Your task to perform on an android device: turn on improve location accuracy Image 0: 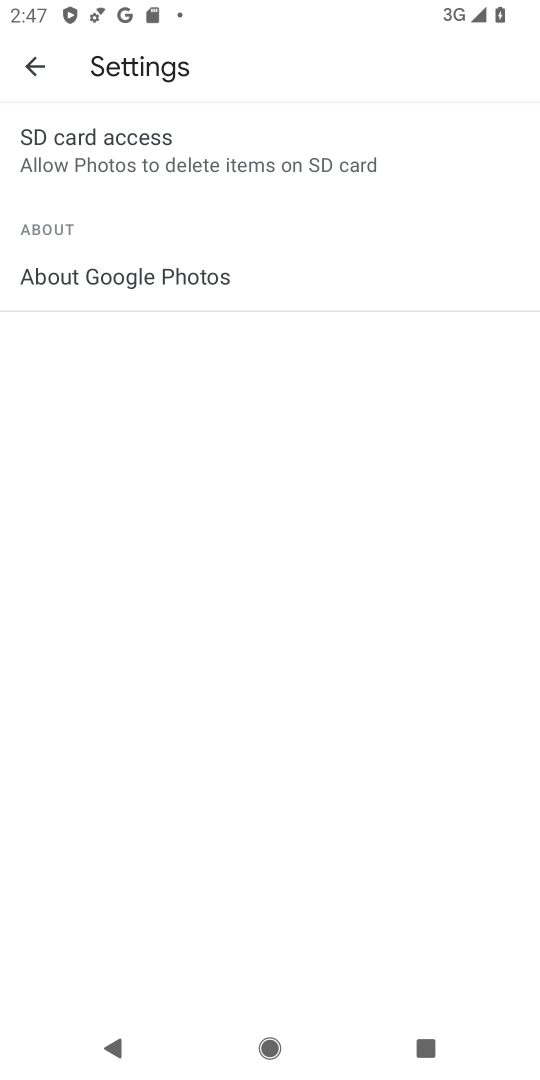
Step 0: press home button
Your task to perform on an android device: turn on improve location accuracy Image 1: 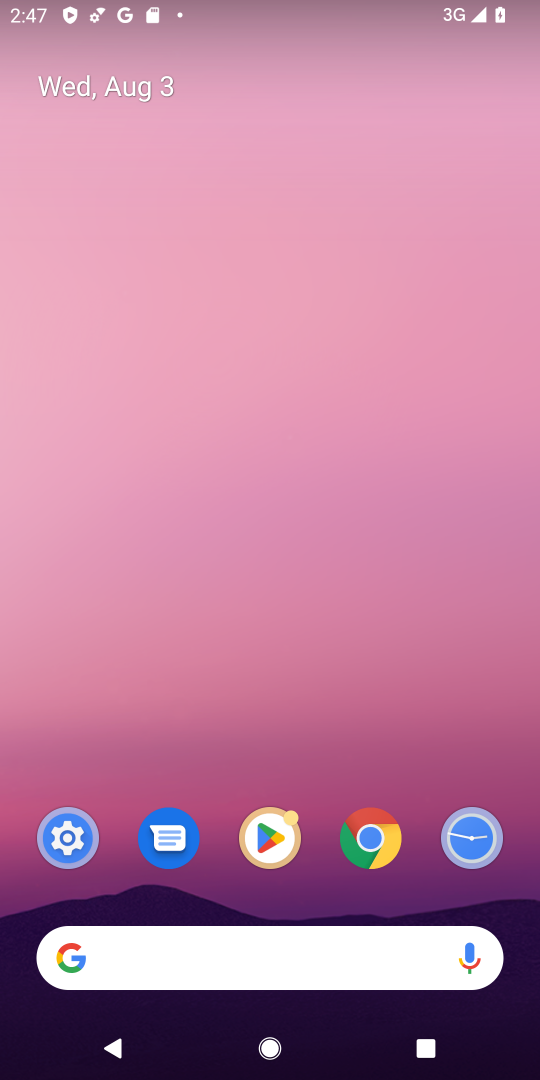
Step 1: click (55, 831)
Your task to perform on an android device: turn on improve location accuracy Image 2: 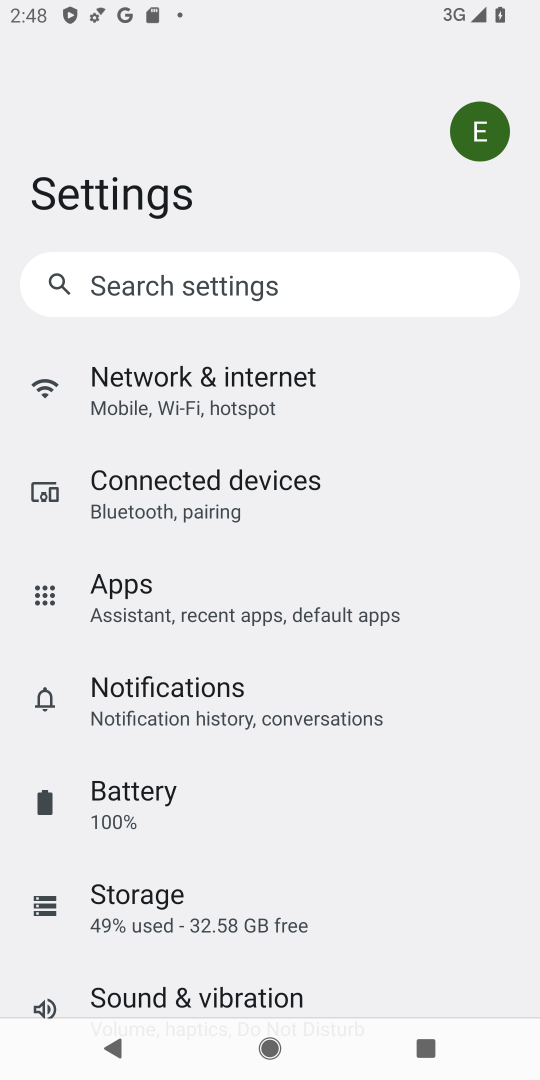
Step 2: drag from (187, 919) to (174, 302)
Your task to perform on an android device: turn on improve location accuracy Image 3: 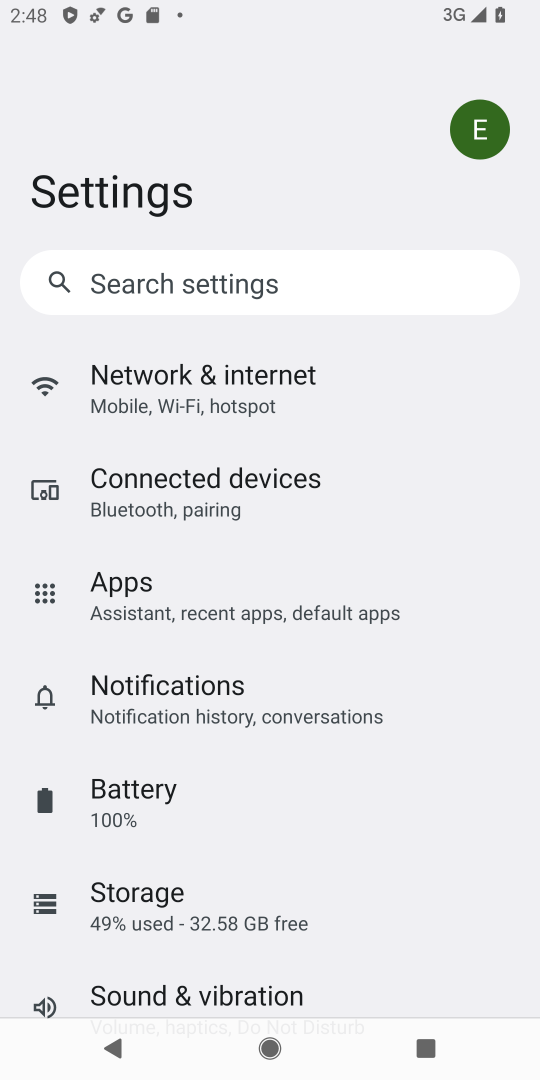
Step 3: drag from (228, 803) to (162, 176)
Your task to perform on an android device: turn on improve location accuracy Image 4: 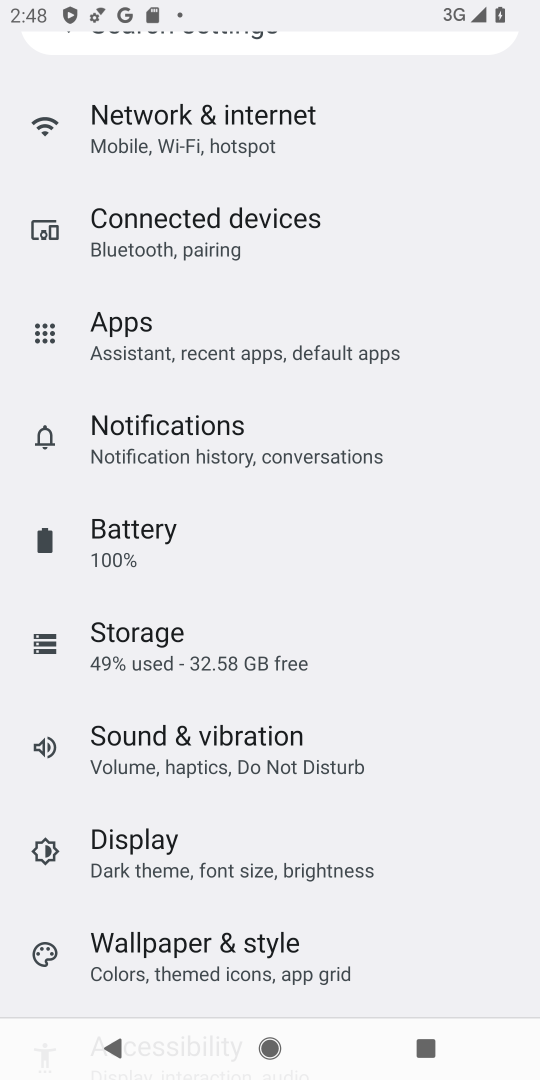
Step 4: drag from (209, 809) to (194, 107)
Your task to perform on an android device: turn on improve location accuracy Image 5: 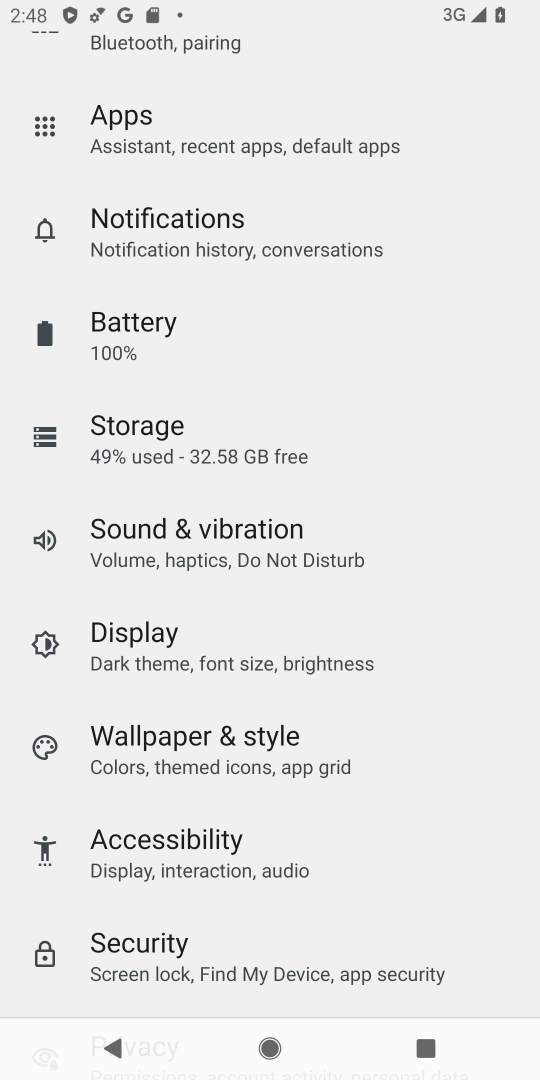
Step 5: drag from (245, 838) to (222, 413)
Your task to perform on an android device: turn on improve location accuracy Image 6: 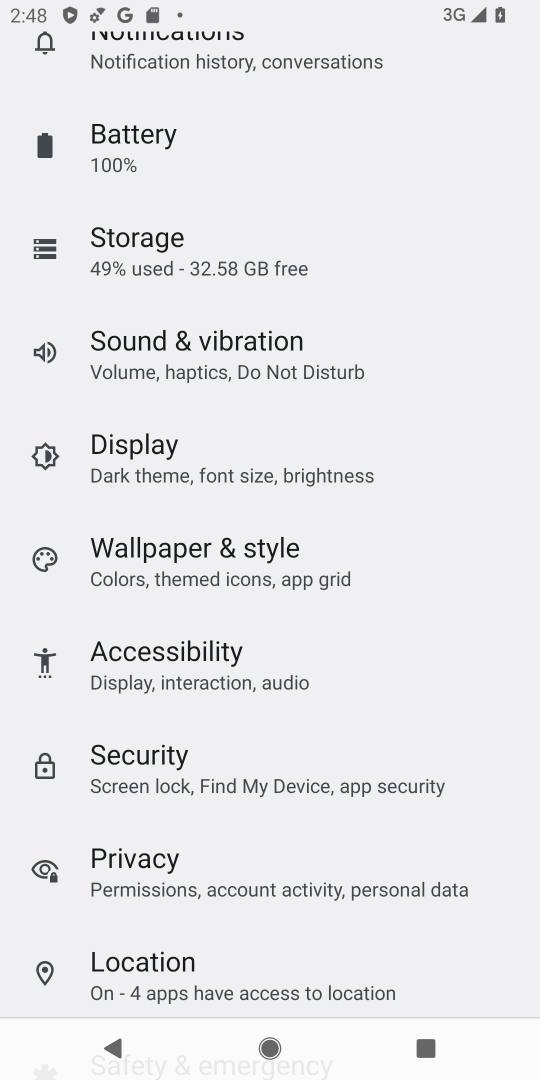
Step 6: click (214, 977)
Your task to perform on an android device: turn on improve location accuracy Image 7: 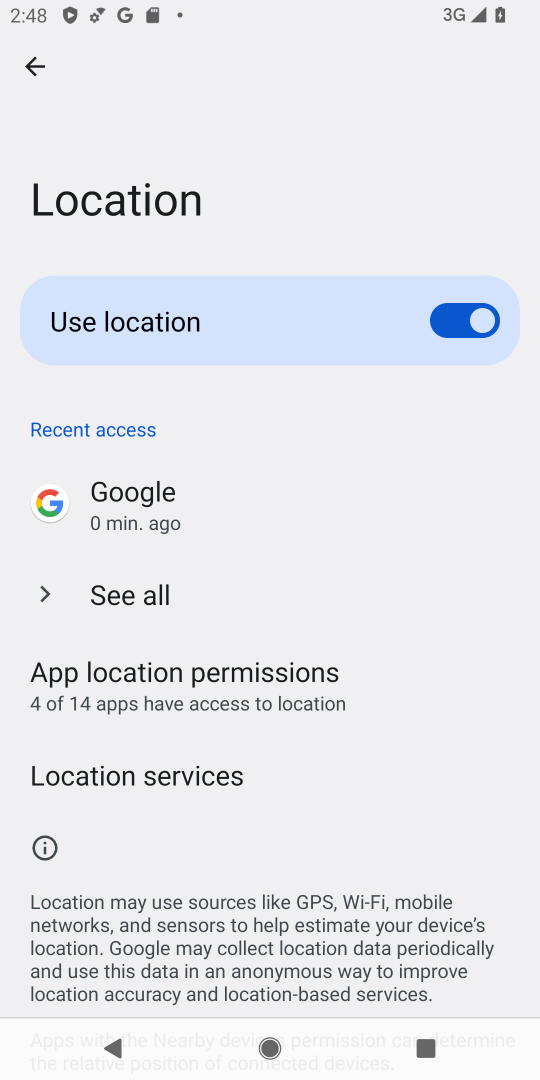
Step 7: click (157, 770)
Your task to perform on an android device: turn on improve location accuracy Image 8: 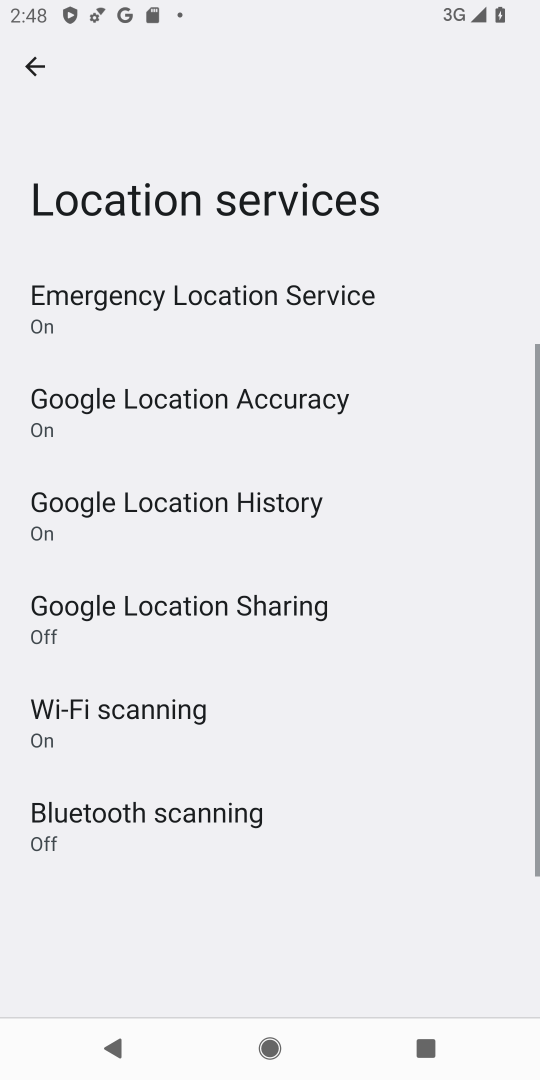
Step 8: click (208, 419)
Your task to perform on an android device: turn on improve location accuracy Image 9: 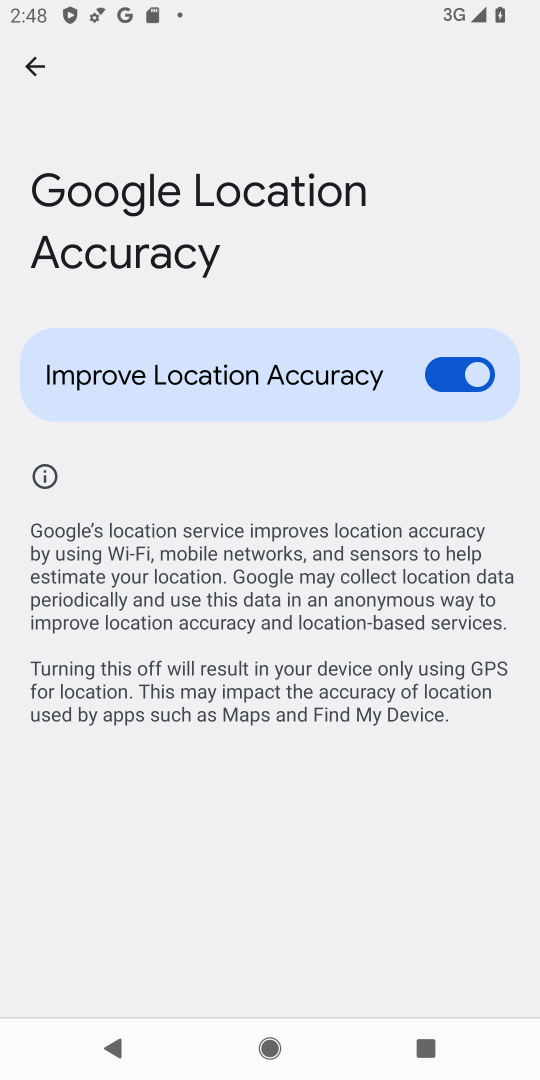
Step 9: task complete